Your task to perform on an android device: What's the weather going to be tomorrow? Image 0: 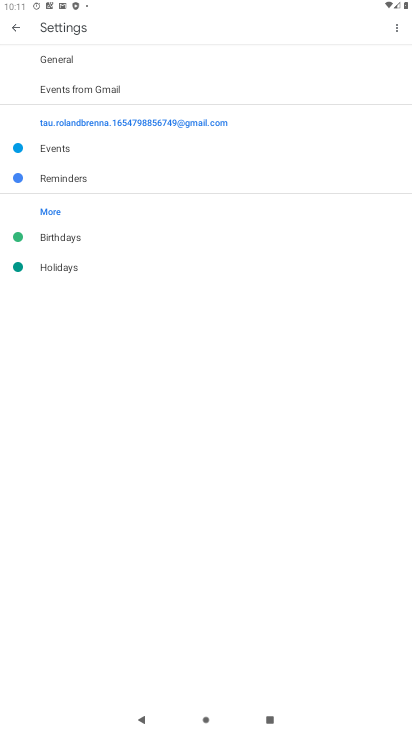
Step 0: press home button
Your task to perform on an android device: What's the weather going to be tomorrow? Image 1: 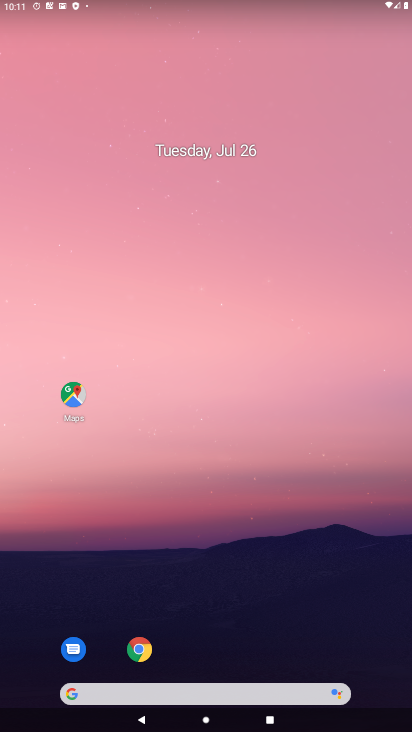
Step 1: drag from (190, 616) to (228, 110)
Your task to perform on an android device: What's the weather going to be tomorrow? Image 2: 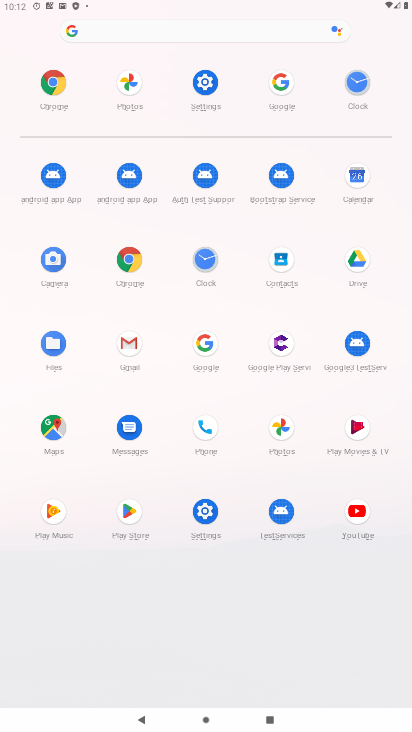
Step 2: click (197, 36)
Your task to perform on an android device: What's the weather going to be tomorrow? Image 3: 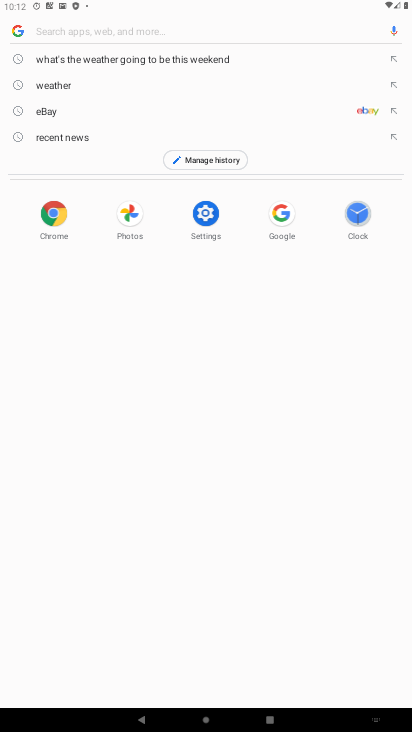
Step 3: type "What's the weather going to be tomorrow?"
Your task to perform on an android device: What's the weather going to be tomorrow? Image 4: 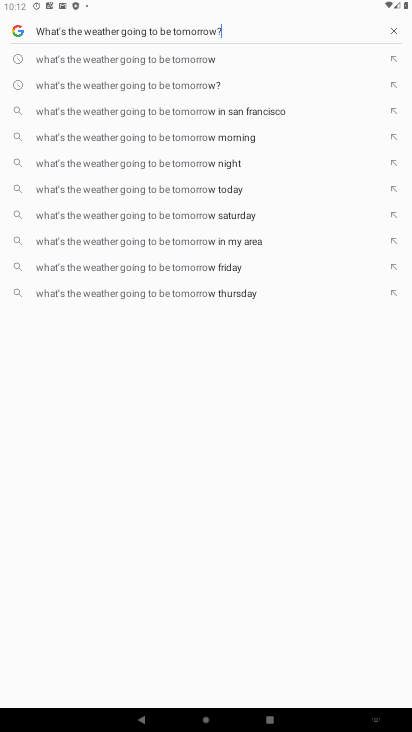
Step 4: type ""
Your task to perform on an android device: What's the weather going to be tomorrow? Image 5: 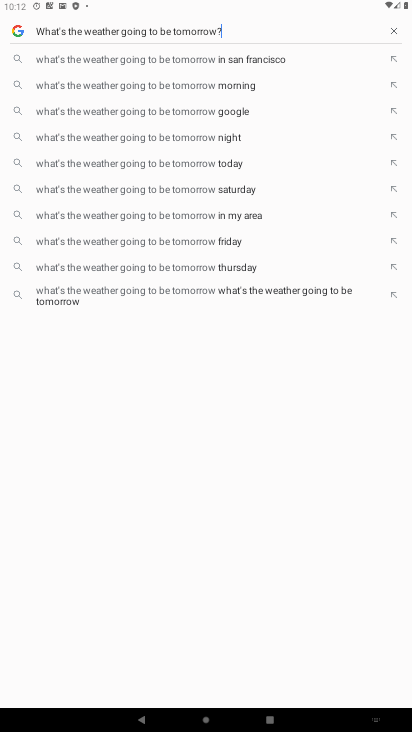
Step 5: click (169, 109)
Your task to perform on an android device: What's the weather going to be tomorrow? Image 6: 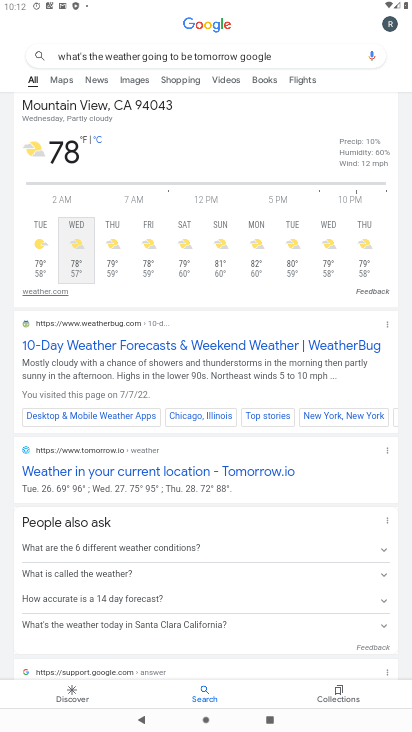
Step 6: task complete